Your task to perform on an android device: turn on javascript in the chrome app Image 0: 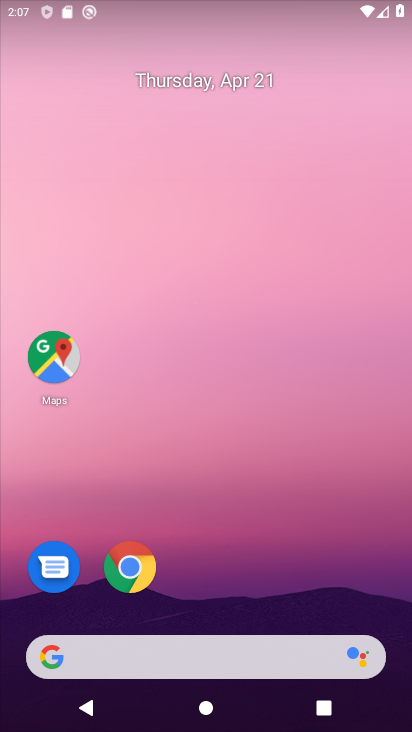
Step 0: drag from (302, 494) to (334, 229)
Your task to perform on an android device: turn on javascript in the chrome app Image 1: 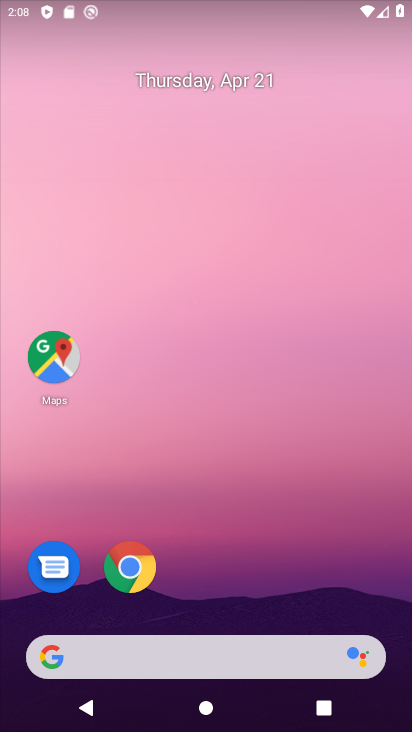
Step 1: drag from (321, 558) to (362, 138)
Your task to perform on an android device: turn on javascript in the chrome app Image 2: 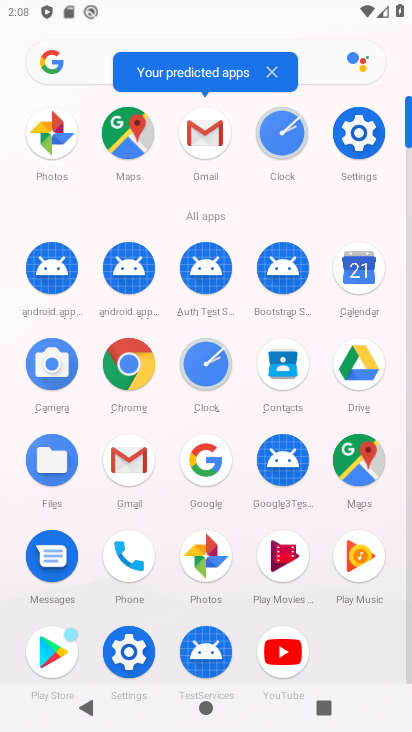
Step 2: click (137, 364)
Your task to perform on an android device: turn on javascript in the chrome app Image 3: 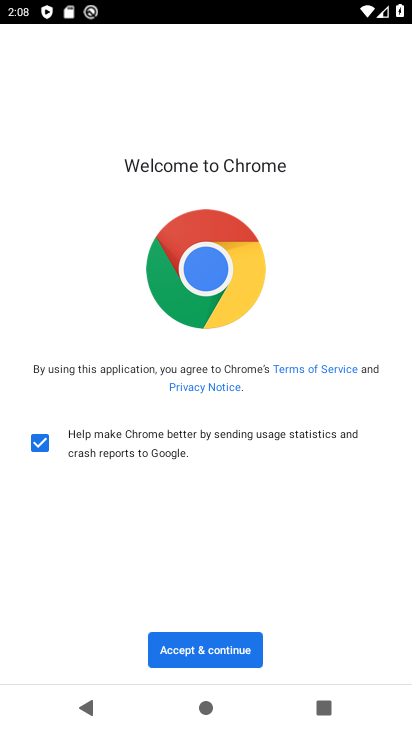
Step 3: click (211, 650)
Your task to perform on an android device: turn on javascript in the chrome app Image 4: 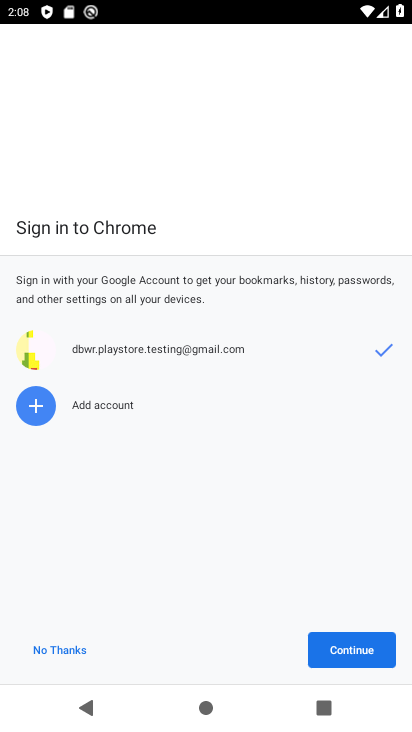
Step 4: click (328, 644)
Your task to perform on an android device: turn on javascript in the chrome app Image 5: 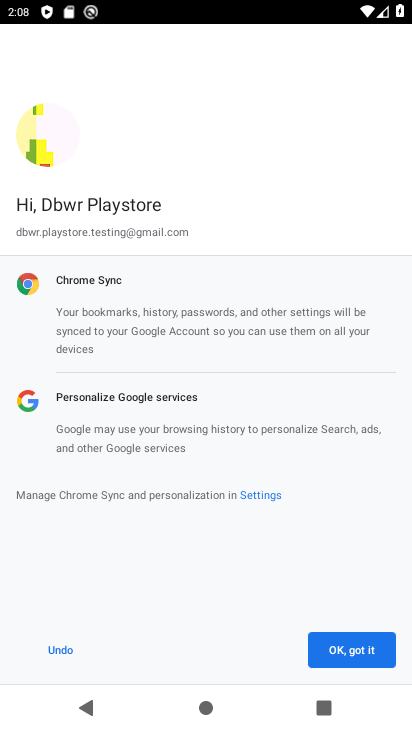
Step 5: click (348, 653)
Your task to perform on an android device: turn on javascript in the chrome app Image 6: 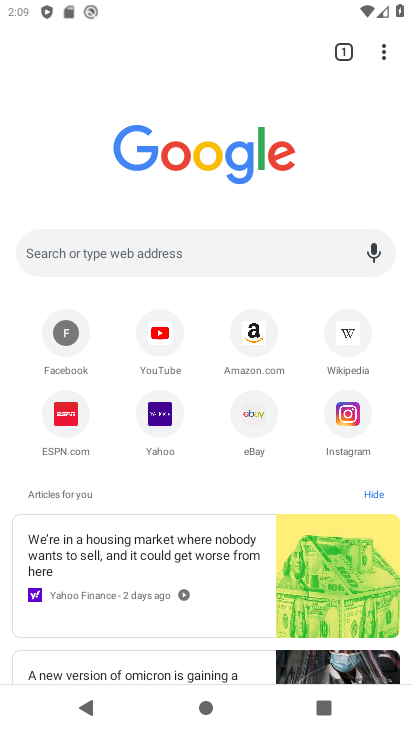
Step 6: drag from (380, 52) to (204, 434)
Your task to perform on an android device: turn on javascript in the chrome app Image 7: 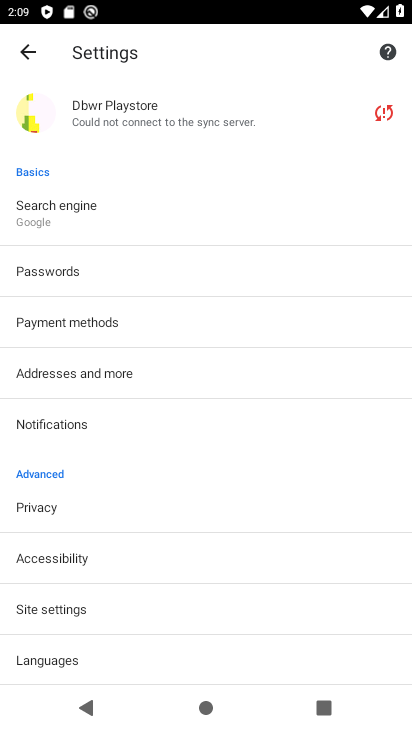
Step 7: click (48, 604)
Your task to perform on an android device: turn on javascript in the chrome app Image 8: 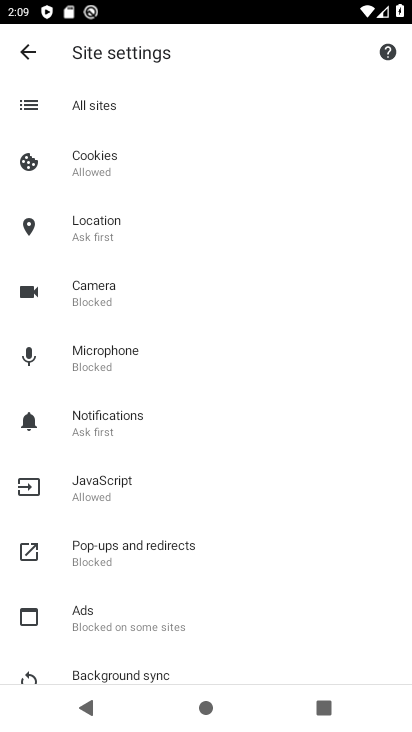
Step 8: click (88, 481)
Your task to perform on an android device: turn on javascript in the chrome app Image 9: 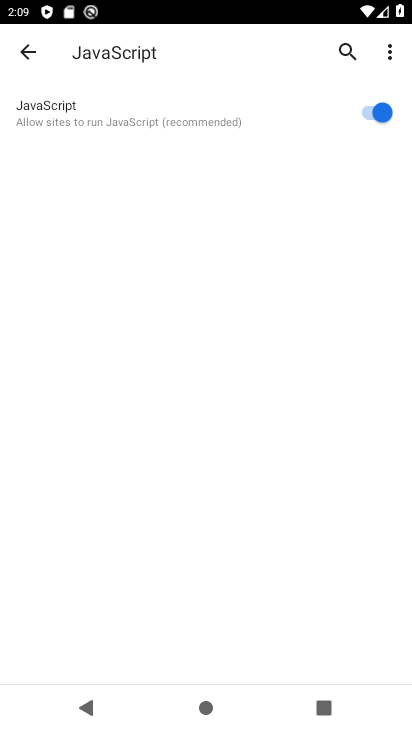
Step 9: task complete